Your task to perform on an android device: delete a single message in the gmail app Image 0: 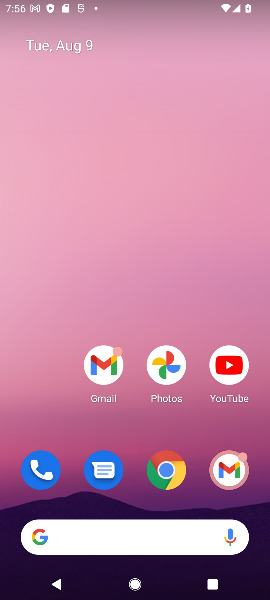
Step 0: click (103, 372)
Your task to perform on an android device: delete a single message in the gmail app Image 1: 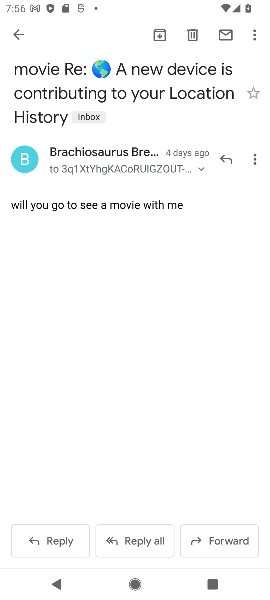
Step 1: click (188, 29)
Your task to perform on an android device: delete a single message in the gmail app Image 2: 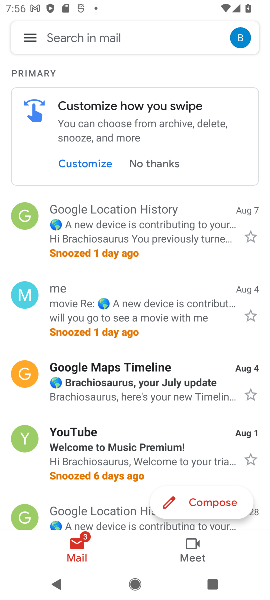
Step 2: task complete